Your task to perform on an android device: Go to internet settings Image 0: 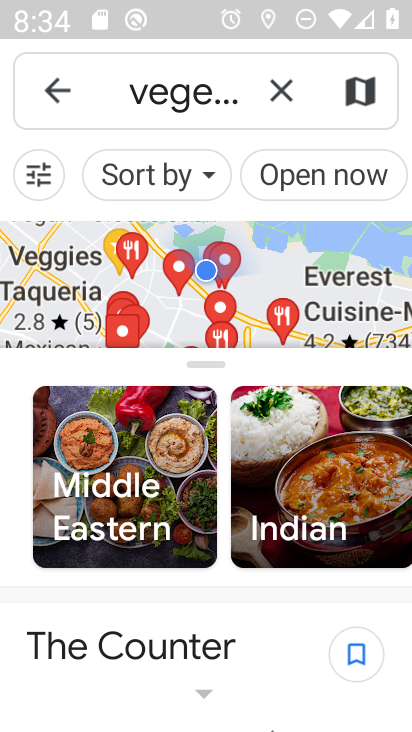
Step 0: press home button
Your task to perform on an android device: Go to internet settings Image 1: 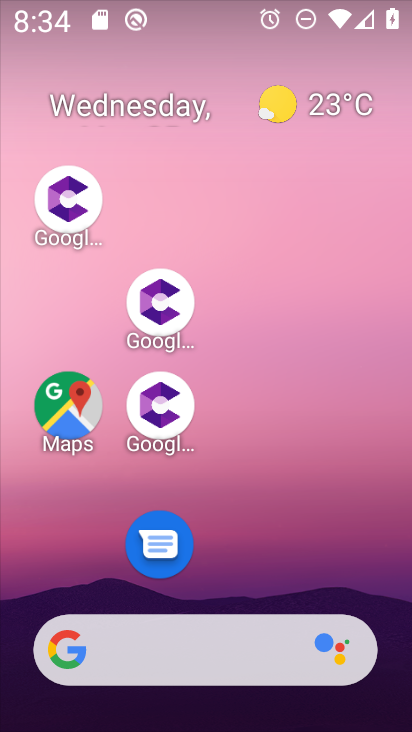
Step 1: drag from (297, 564) to (283, 60)
Your task to perform on an android device: Go to internet settings Image 2: 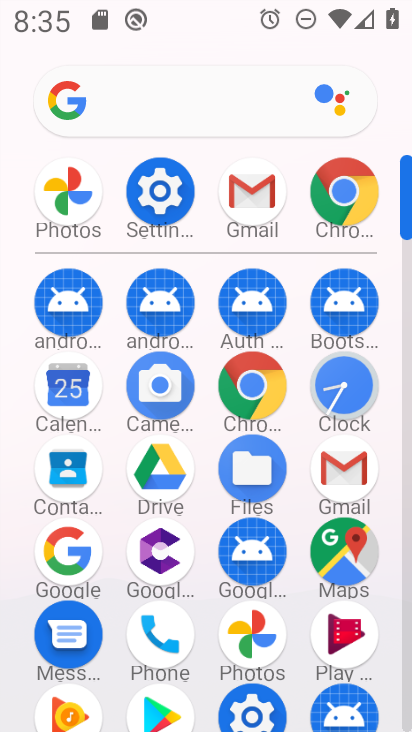
Step 2: click (158, 178)
Your task to perform on an android device: Go to internet settings Image 3: 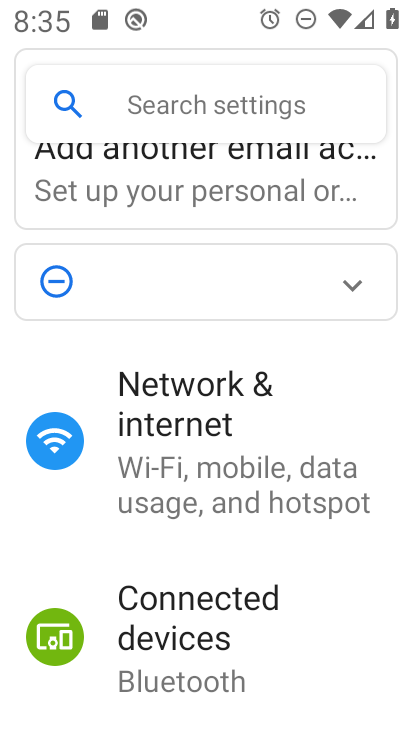
Step 3: click (180, 377)
Your task to perform on an android device: Go to internet settings Image 4: 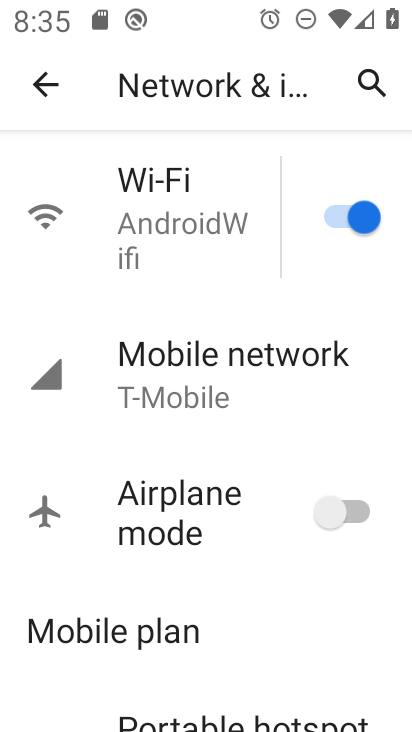
Step 4: click (176, 360)
Your task to perform on an android device: Go to internet settings Image 5: 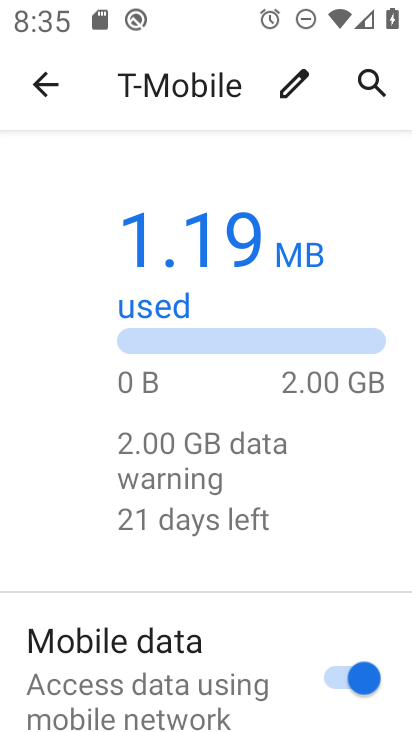
Step 5: task complete